Your task to perform on an android device: Open Google Image 0: 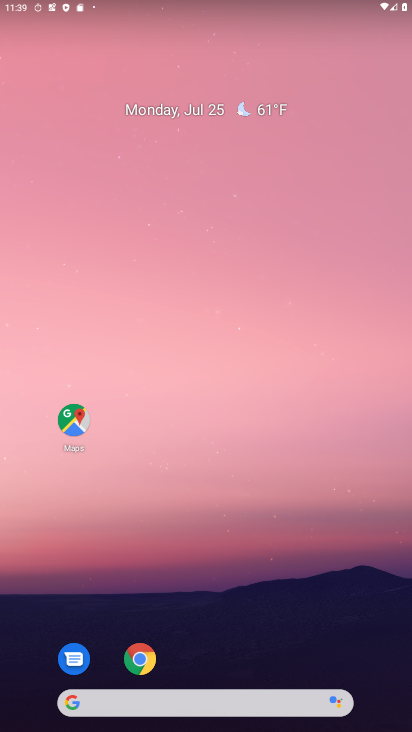
Step 0: click (121, 695)
Your task to perform on an android device: Open Google Image 1: 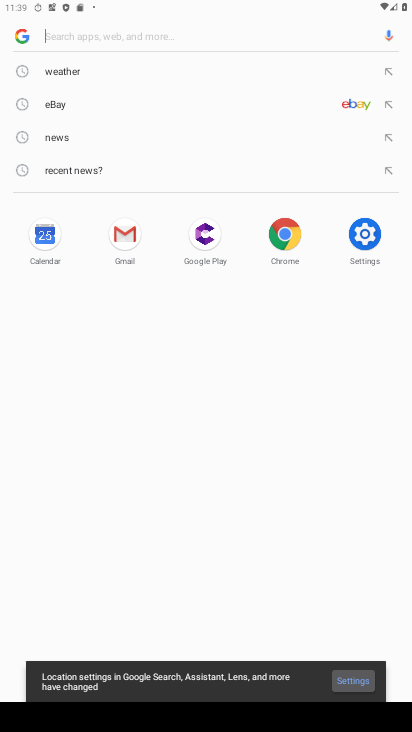
Step 1: task complete